Your task to perform on an android device: change the clock display to show seconds Image 0: 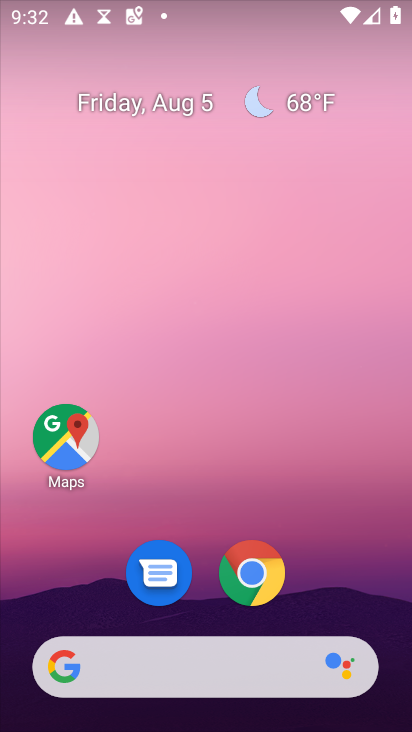
Step 0: drag from (161, 660) to (186, 196)
Your task to perform on an android device: change the clock display to show seconds Image 1: 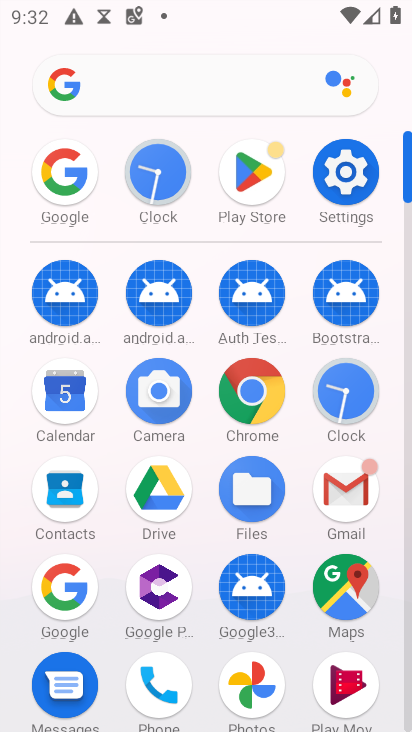
Step 1: click (345, 393)
Your task to perform on an android device: change the clock display to show seconds Image 2: 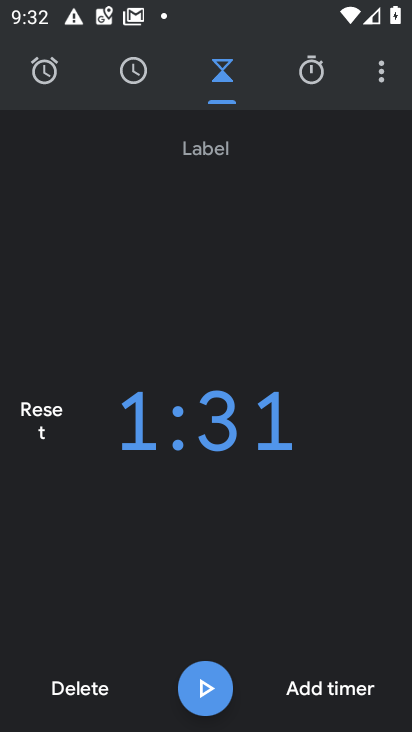
Step 2: click (384, 70)
Your task to perform on an android device: change the clock display to show seconds Image 3: 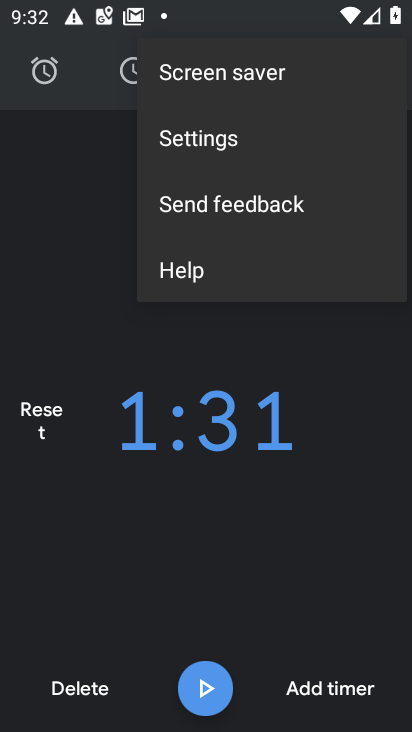
Step 3: click (235, 148)
Your task to perform on an android device: change the clock display to show seconds Image 4: 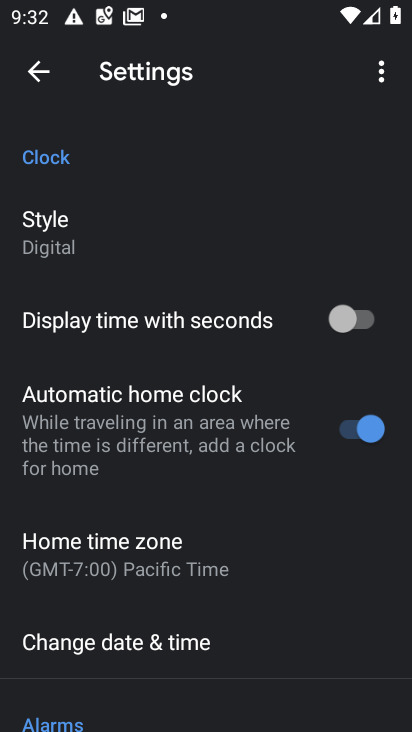
Step 4: click (340, 319)
Your task to perform on an android device: change the clock display to show seconds Image 5: 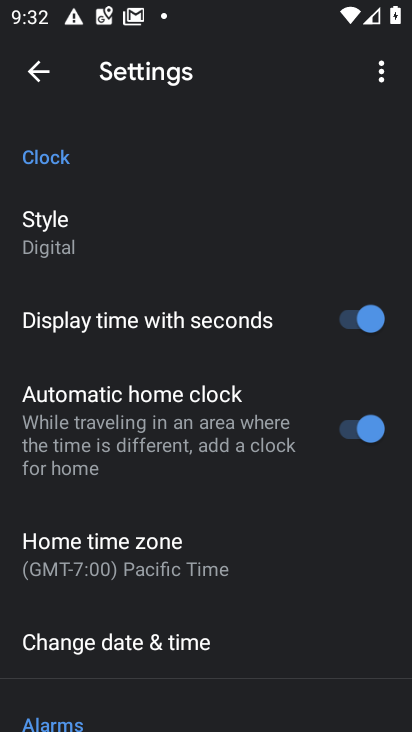
Step 5: task complete